Your task to perform on an android device: toggle pop-ups in chrome Image 0: 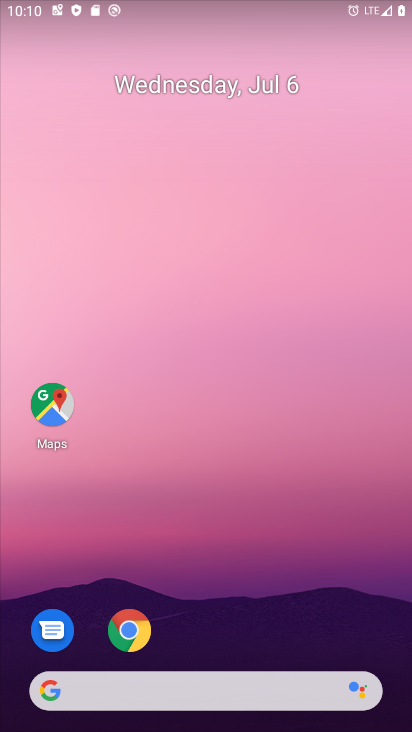
Step 0: click (130, 631)
Your task to perform on an android device: toggle pop-ups in chrome Image 1: 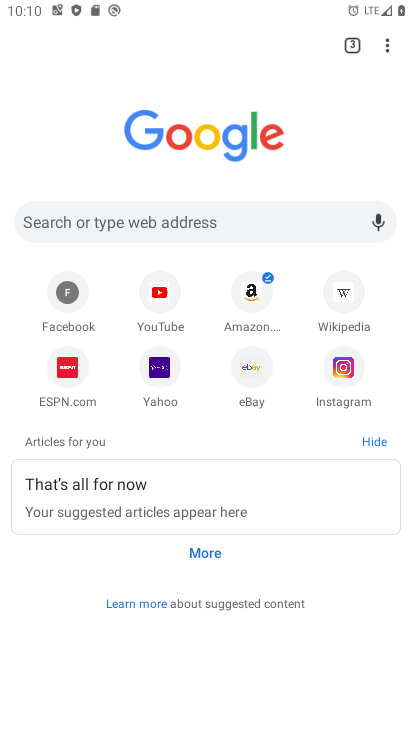
Step 1: click (386, 49)
Your task to perform on an android device: toggle pop-ups in chrome Image 2: 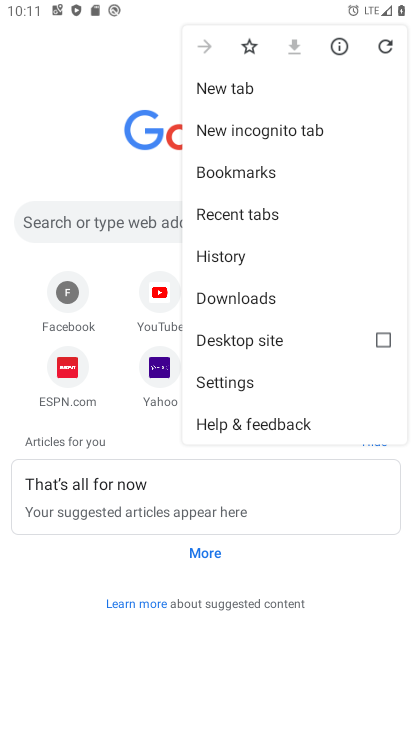
Step 2: click (239, 377)
Your task to perform on an android device: toggle pop-ups in chrome Image 3: 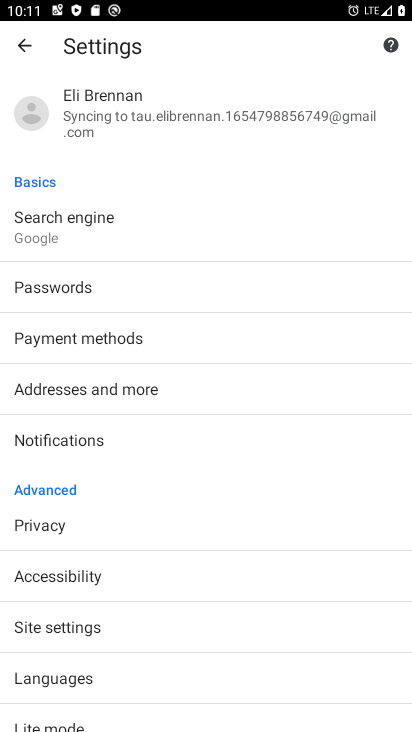
Step 3: click (54, 626)
Your task to perform on an android device: toggle pop-ups in chrome Image 4: 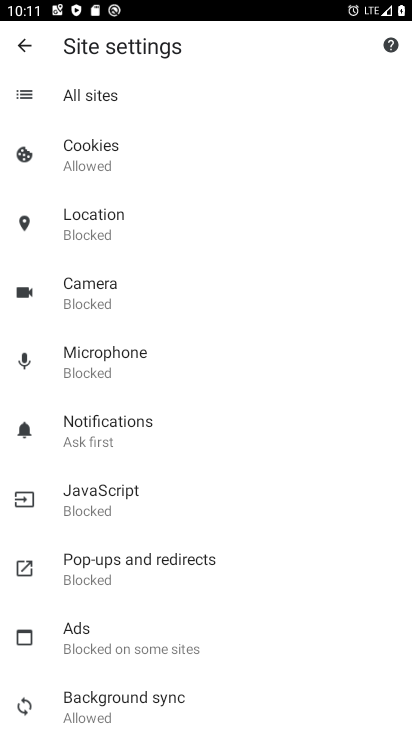
Step 4: click (87, 562)
Your task to perform on an android device: toggle pop-ups in chrome Image 5: 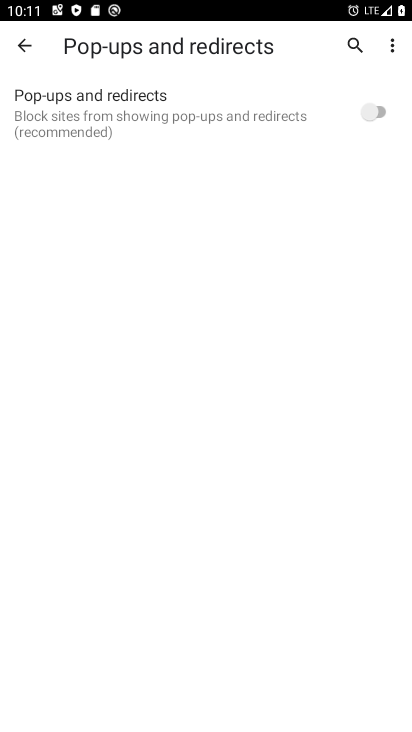
Step 5: click (379, 110)
Your task to perform on an android device: toggle pop-ups in chrome Image 6: 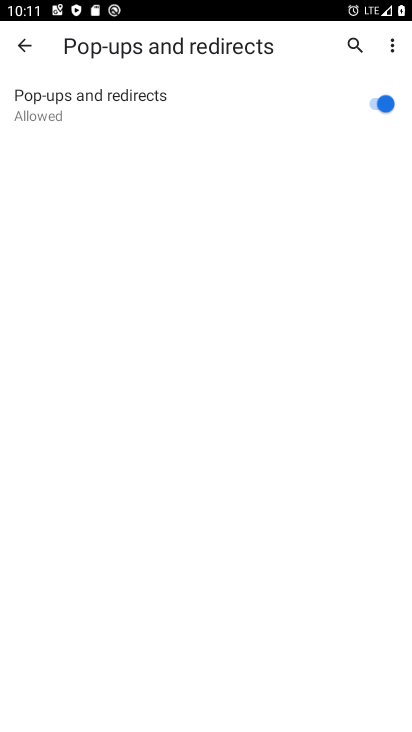
Step 6: task complete